Your task to perform on an android device: empty trash in google photos Image 0: 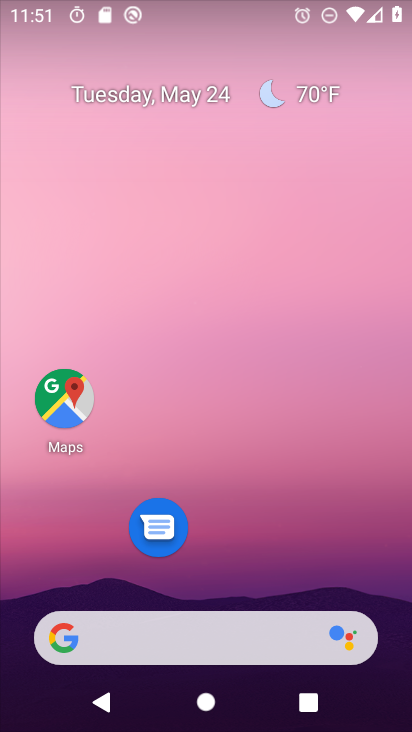
Step 0: drag from (230, 543) to (250, 112)
Your task to perform on an android device: empty trash in google photos Image 1: 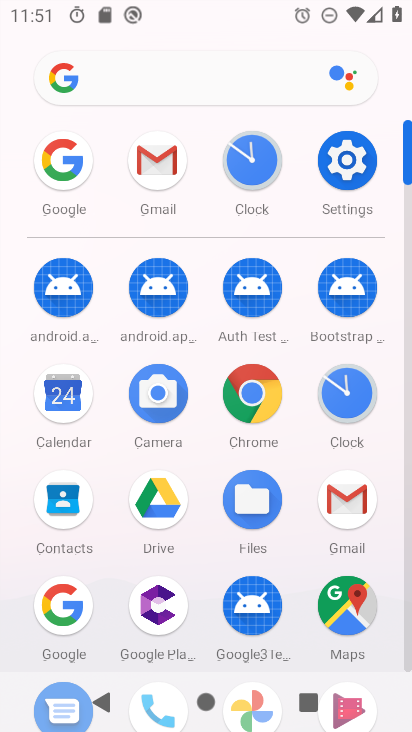
Step 1: drag from (202, 593) to (223, 285)
Your task to perform on an android device: empty trash in google photos Image 2: 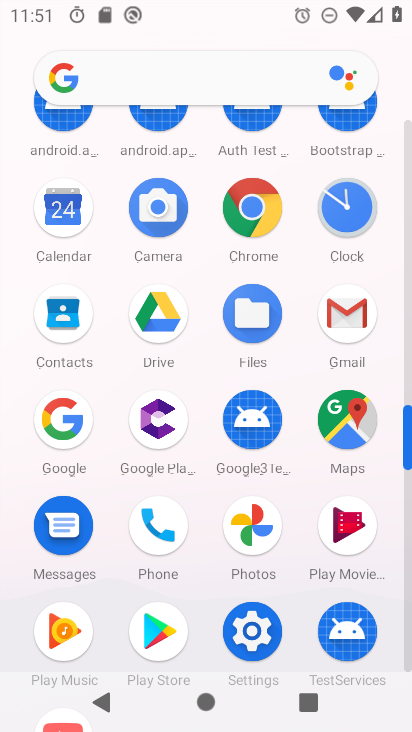
Step 2: click (251, 526)
Your task to perform on an android device: empty trash in google photos Image 3: 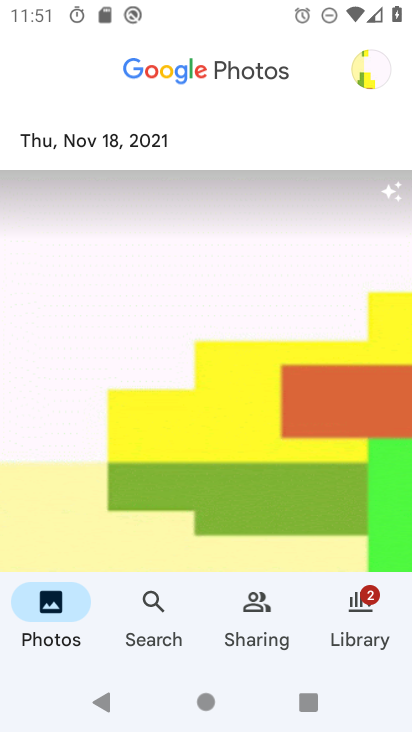
Step 3: click (363, 65)
Your task to perform on an android device: empty trash in google photos Image 4: 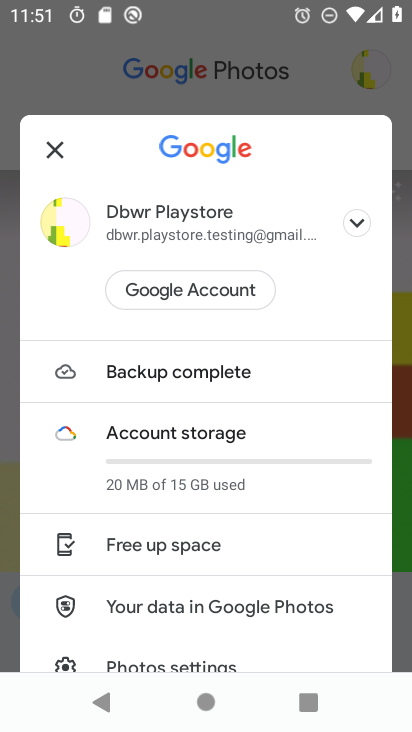
Step 4: click (120, 95)
Your task to perform on an android device: empty trash in google photos Image 5: 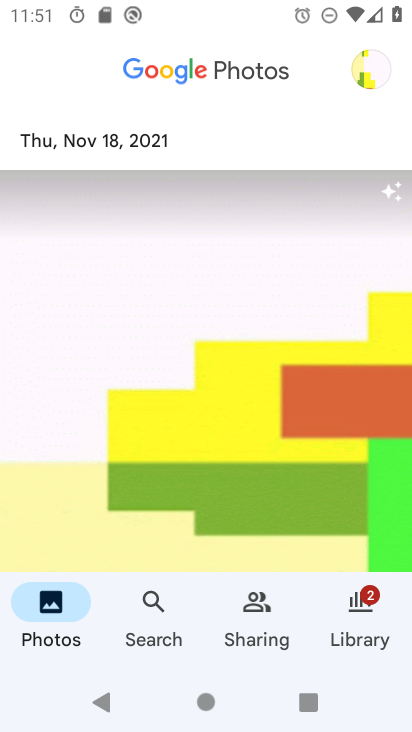
Step 5: click (359, 629)
Your task to perform on an android device: empty trash in google photos Image 6: 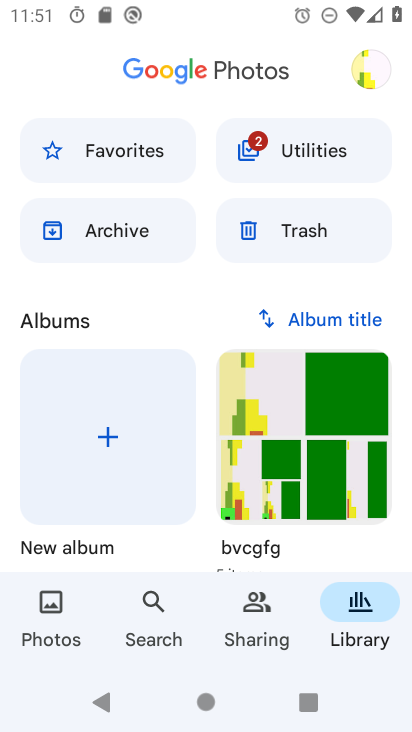
Step 6: click (278, 241)
Your task to perform on an android device: empty trash in google photos Image 7: 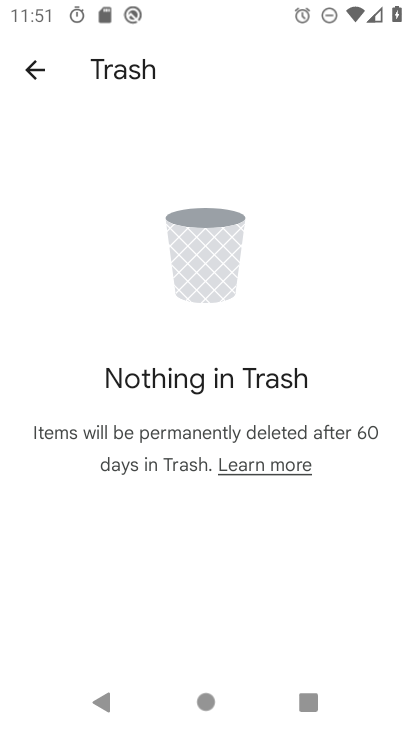
Step 7: task complete